Your task to perform on an android device: Set the phone to "Do not disturb". Image 0: 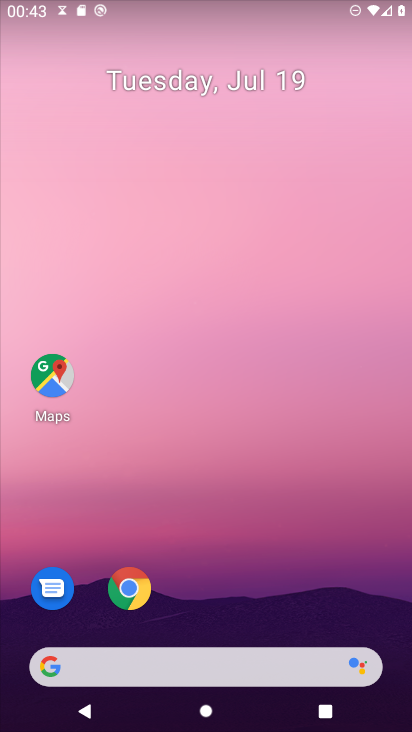
Step 0: press home button
Your task to perform on an android device: Set the phone to "Do not disturb". Image 1: 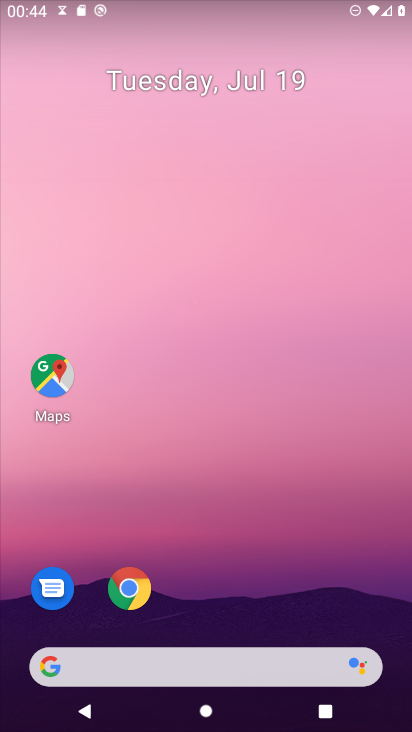
Step 1: task complete